Your task to perform on an android device: add a contact in the contacts app Image 0: 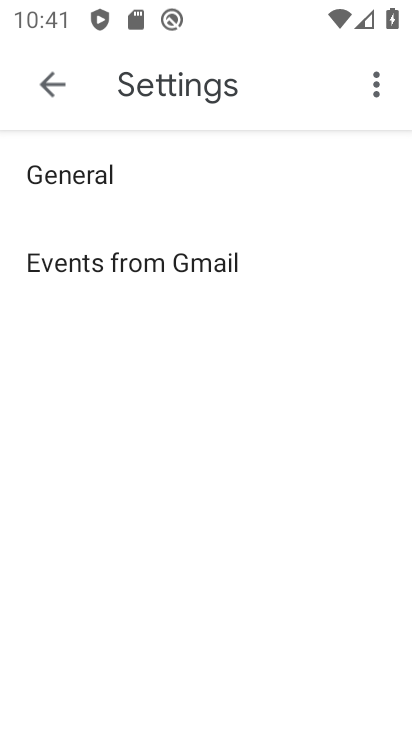
Step 0: press home button
Your task to perform on an android device: add a contact in the contacts app Image 1: 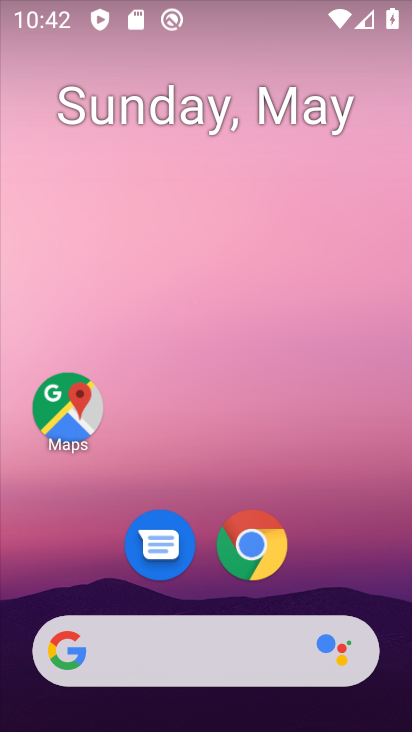
Step 1: drag from (241, 398) to (136, 68)
Your task to perform on an android device: add a contact in the contacts app Image 2: 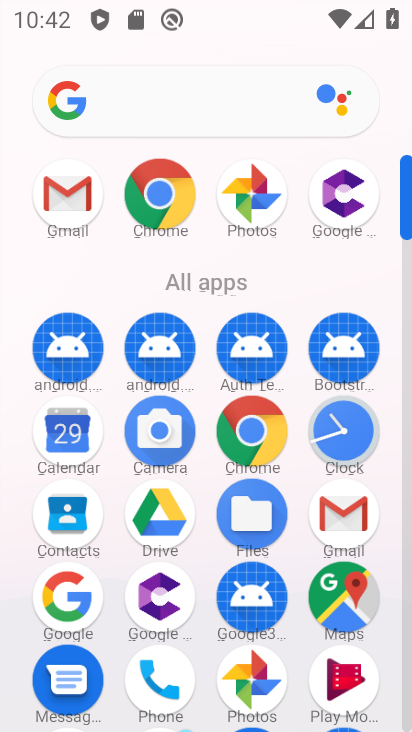
Step 2: click (56, 524)
Your task to perform on an android device: add a contact in the contacts app Image 3: 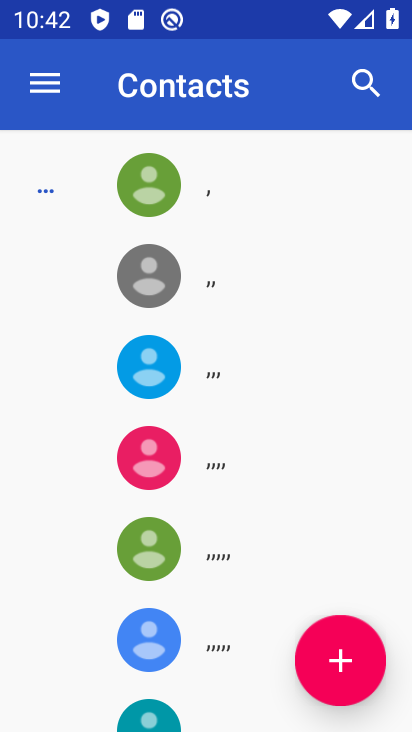
Step 3: click (366, 665)
Your task to perform on an android device: add a contact in the contacts app Image 4: 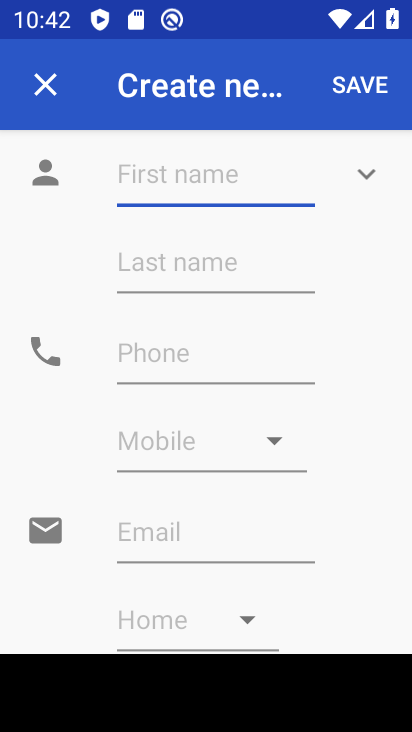
Step 4: type "dK"
Your task to perform on an android device: add a contact in the contacts app Image 5: 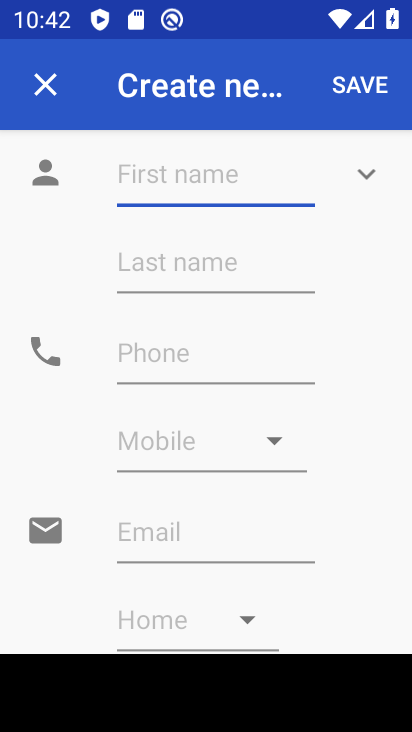
Step 5: click (363, 88)
Your task to perform on an android device: add a contact in the contacts app Image 6: 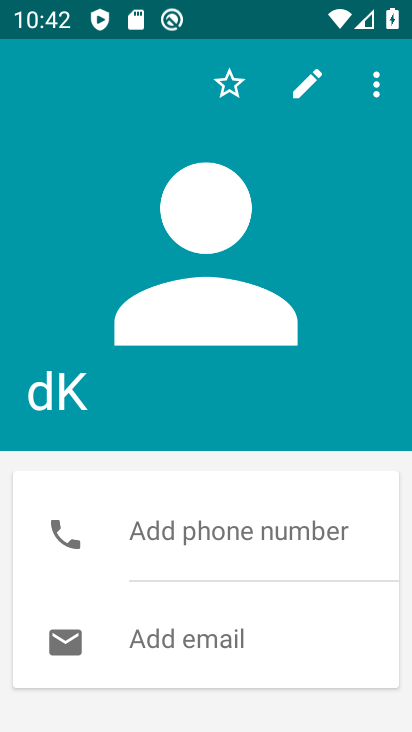
Step 6: task complete